Your task to perform on an android device: What's the weather going to be this weekend? Image 0: 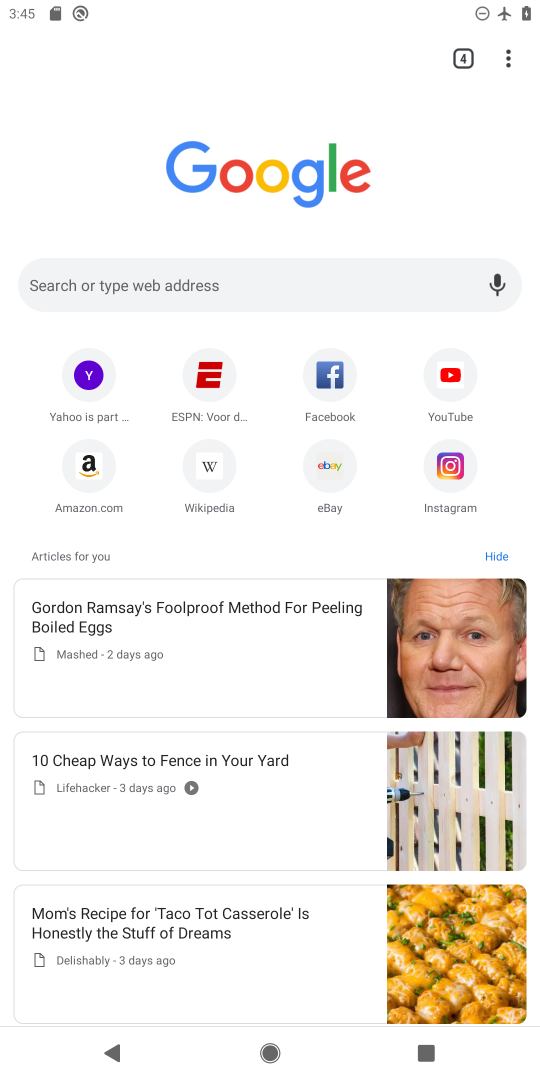
Step 0: click (155, 291)
Your task to perform on an android device: What's the weather going to be this weekend? Image 1: 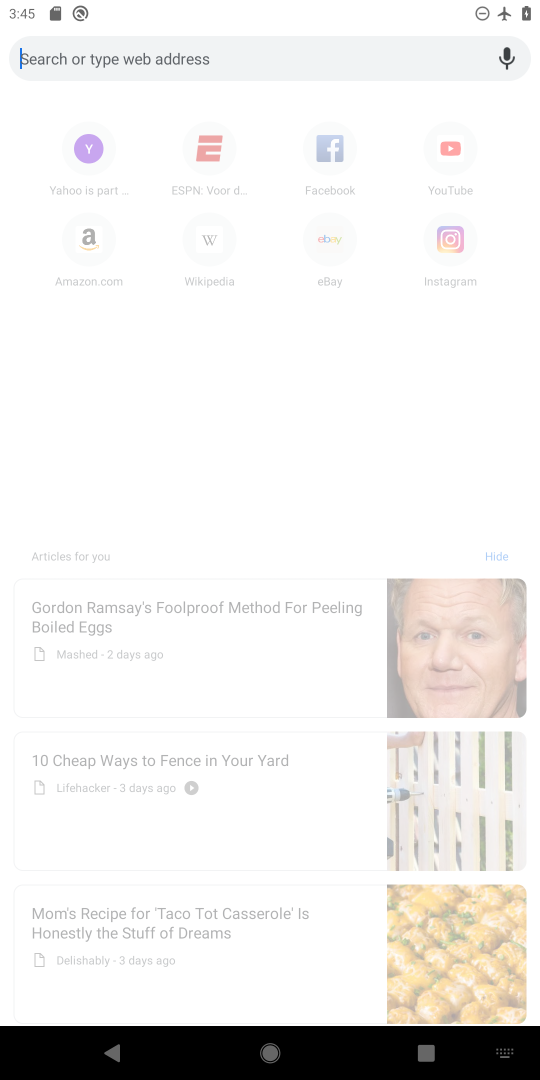
Step 1: type "What's the weather going to be this weekend?"
Your task to perform on an android device: What's the weather going to be this weekend? Image 2: 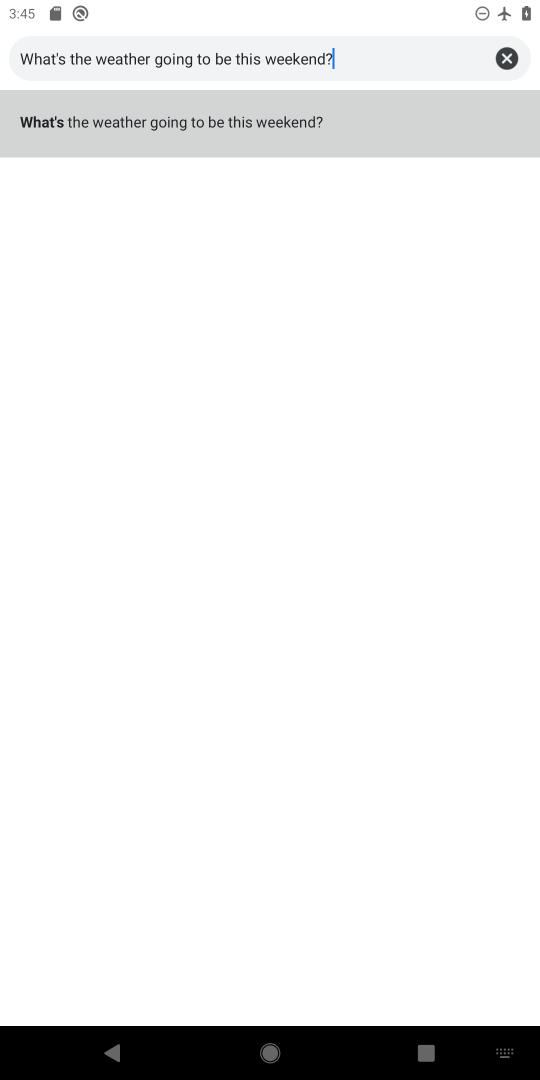
Step 2: press enter
Your task to perform on an android device: What's the weather going to be this weekend? Image 3: 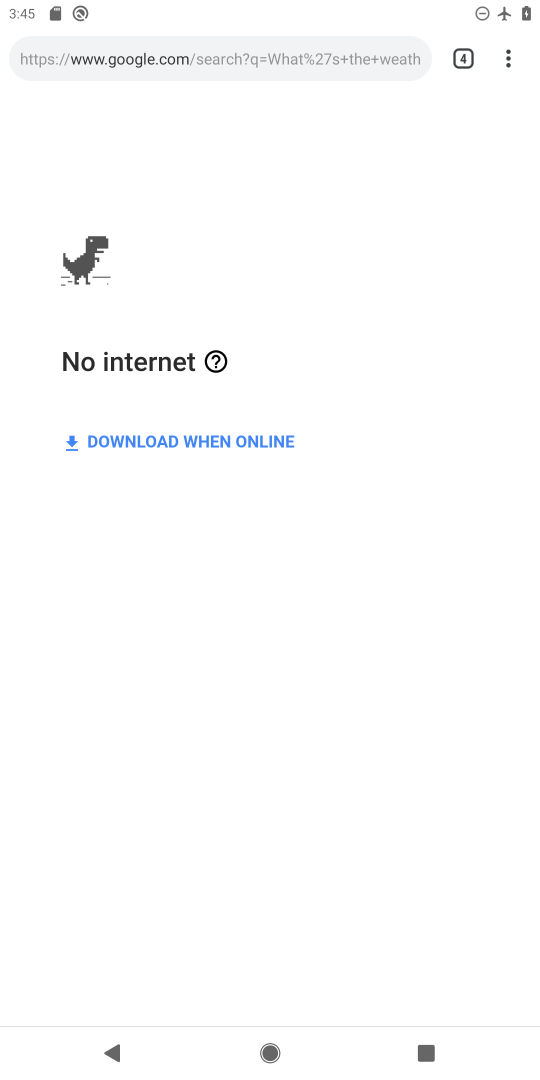
Step 3: drag from (362, 2) to (360, 578)
Your task to perform on an android device: What's the weather going to be this weekend? Image 4: 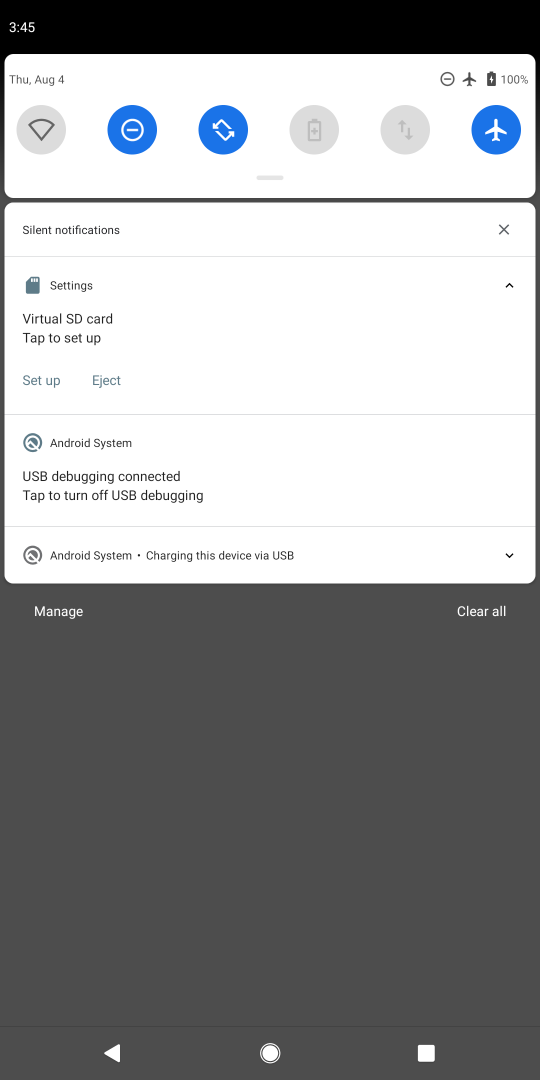
Step 4: click (500, 130)
Your task to perform on an android device: What's the weather going to be this weekend? Image 5: 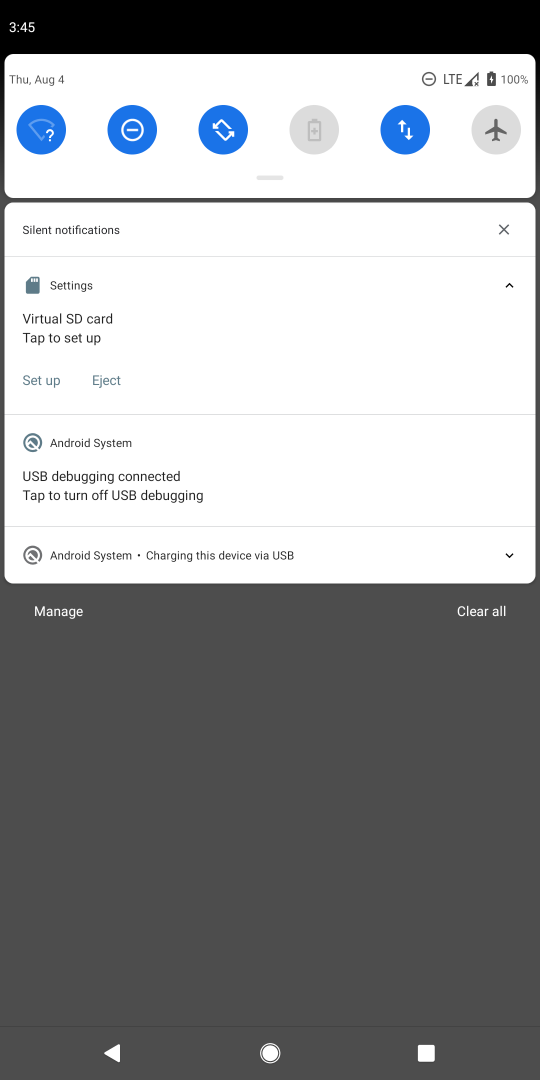
Step 5: click (306, 836)
Your task to perform on an android device: What's the weather going to be this weekend? Image 6: 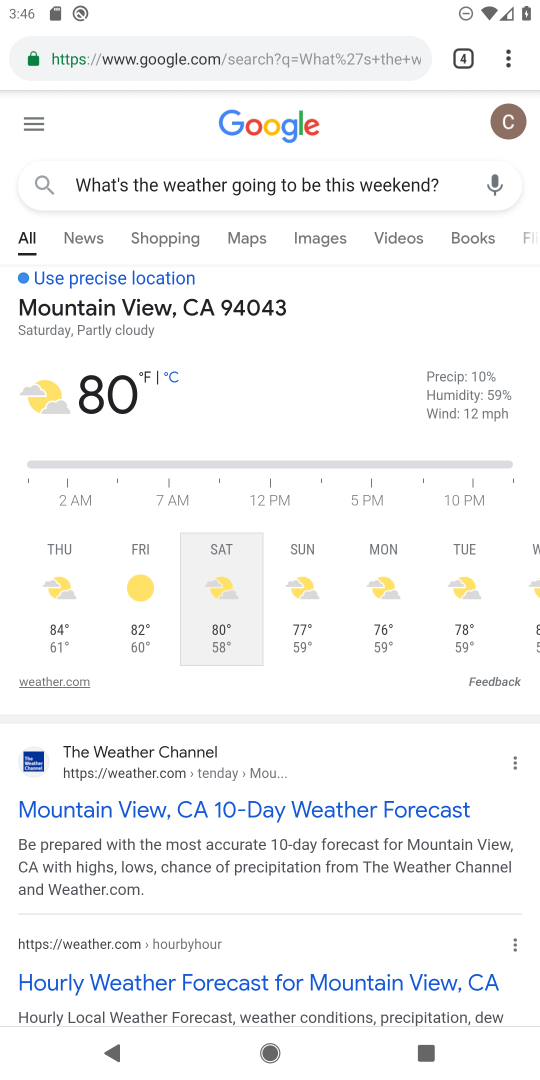
Step 6: task complete